Your task to perform on an android device: turn on location history Image 0: 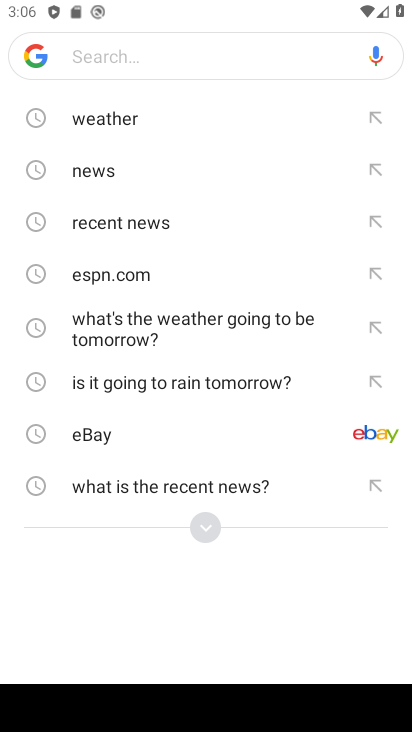
Step 0: press back button
Your task to perform on an android device: turn on location history Image 1: 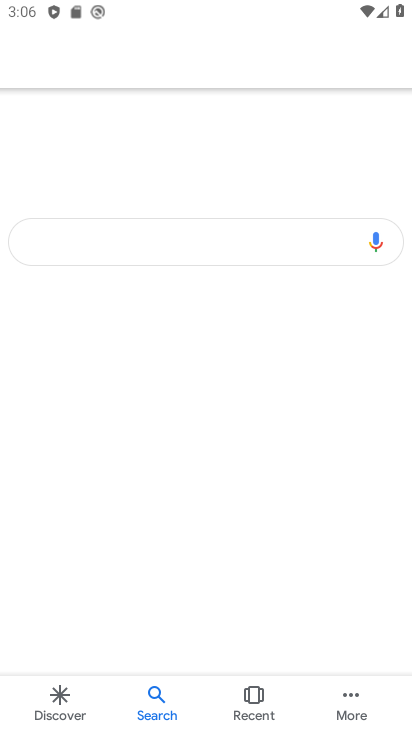
Step 1: press back button
Your task to perform on an android device: turn on location history Image 2: 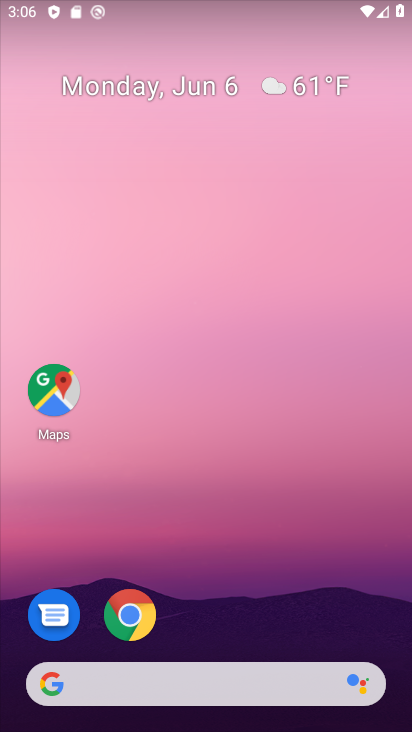
Step 2: drag from (205, 662) to (306, 6)
Your task to perform on an android device: turn on location history Image 3: 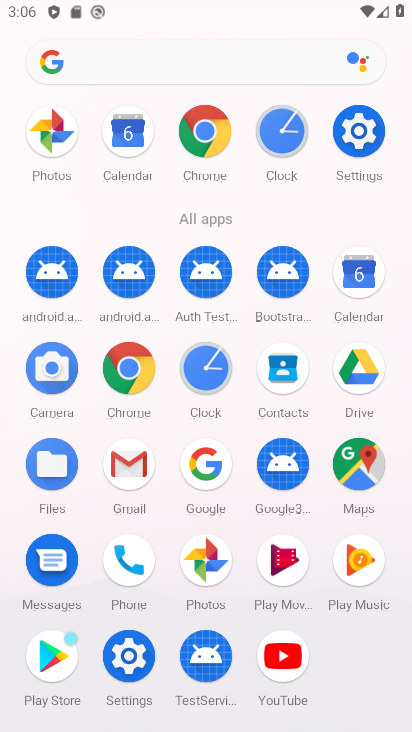
Step 3: click (123, 668)
Your task to perform on an android device: turn on location history Image 4: 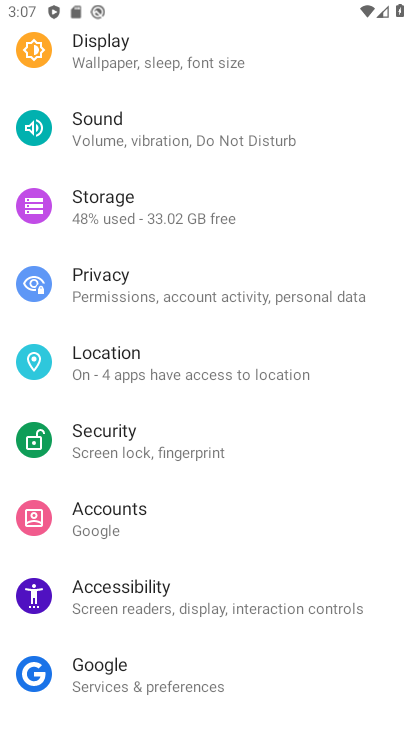
Step 4: drag from (179, 479) to (175, 347)
Your task to perform on an android device: turn on location history Image 5: 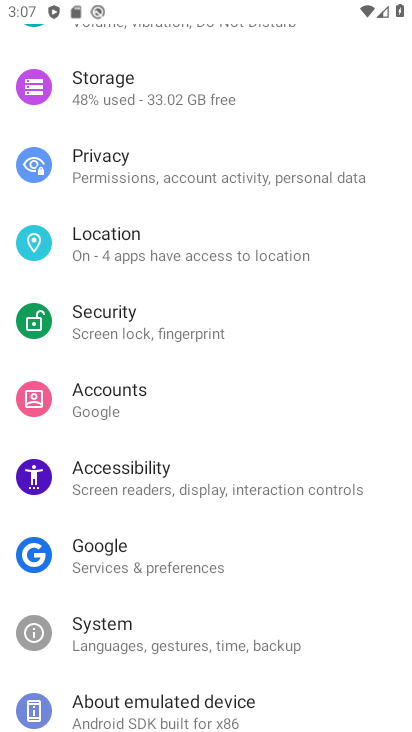
Step 5: click (132, 223)
Your task to perform on an android device: turn on location history Image 6: 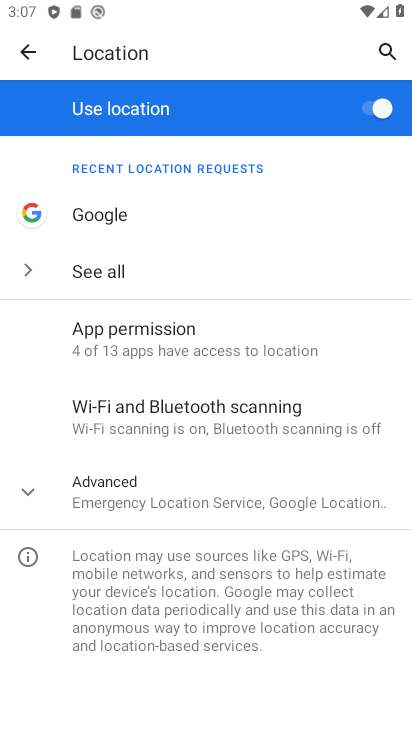
Step 6: click (203, 491)
Your task to perform on an android device: turn on location history Image 7: 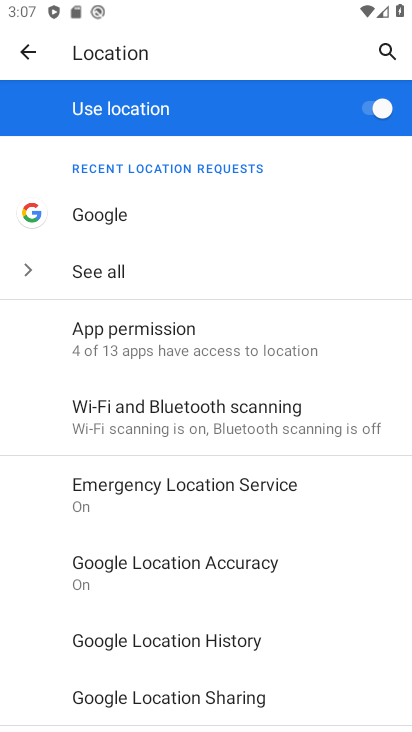
Step 7: click (252, 628)
Your task to perform on an android device: turn on location history Image 8: 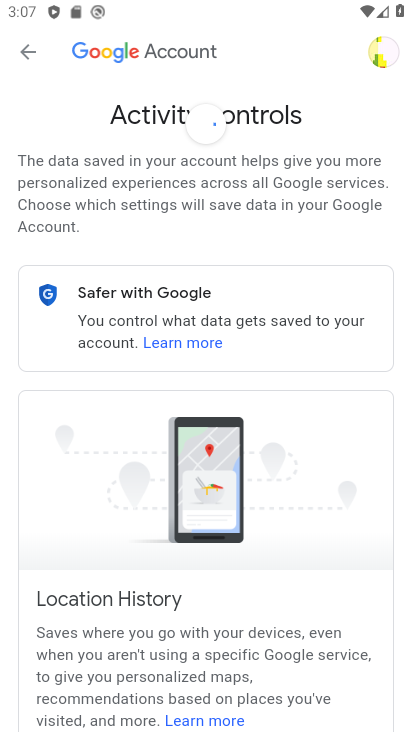
Step 8: task complete